Your task to perform on an android device: Go to Google maps Image 0: 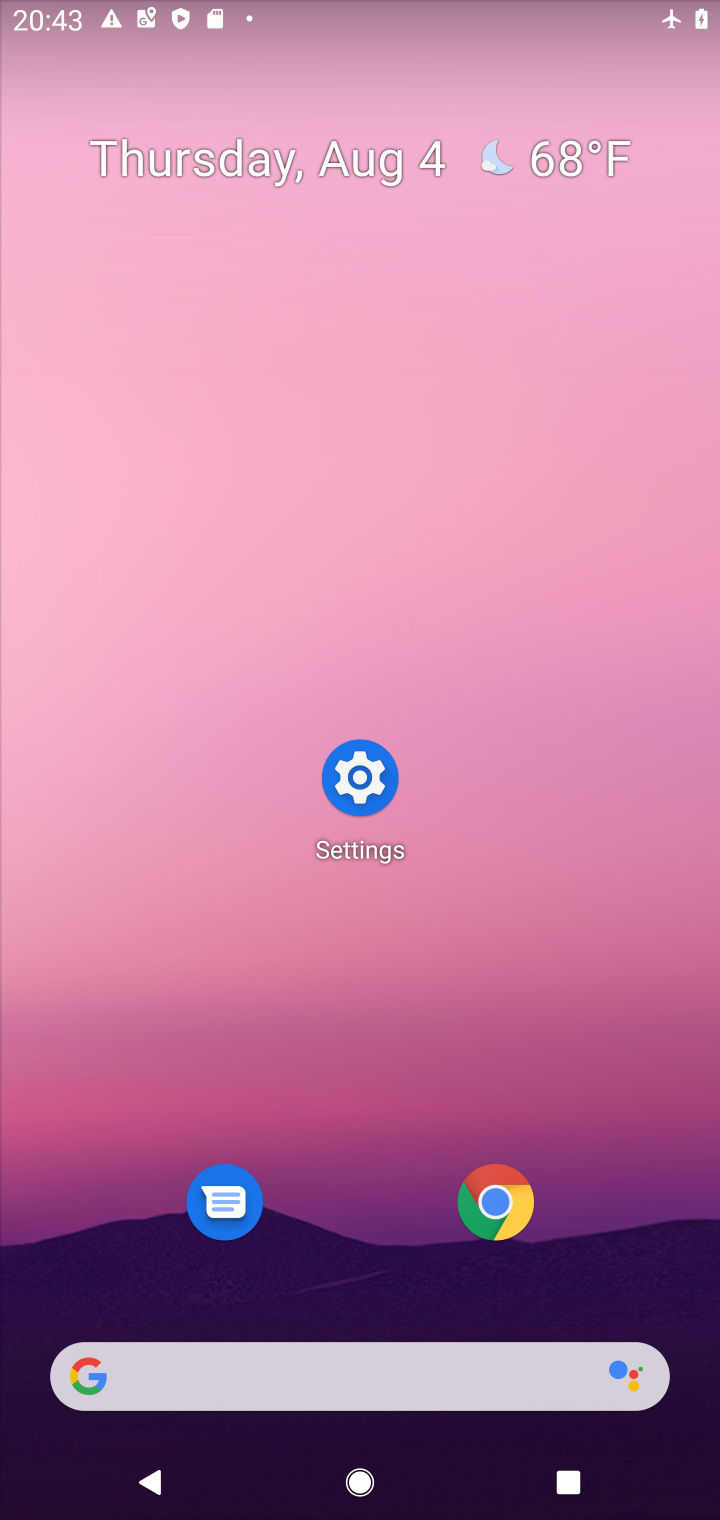
Step 0: drag from (345, 1197) to (361, 341)
Your task to perform on an android device: Go to Google maps Image 1: 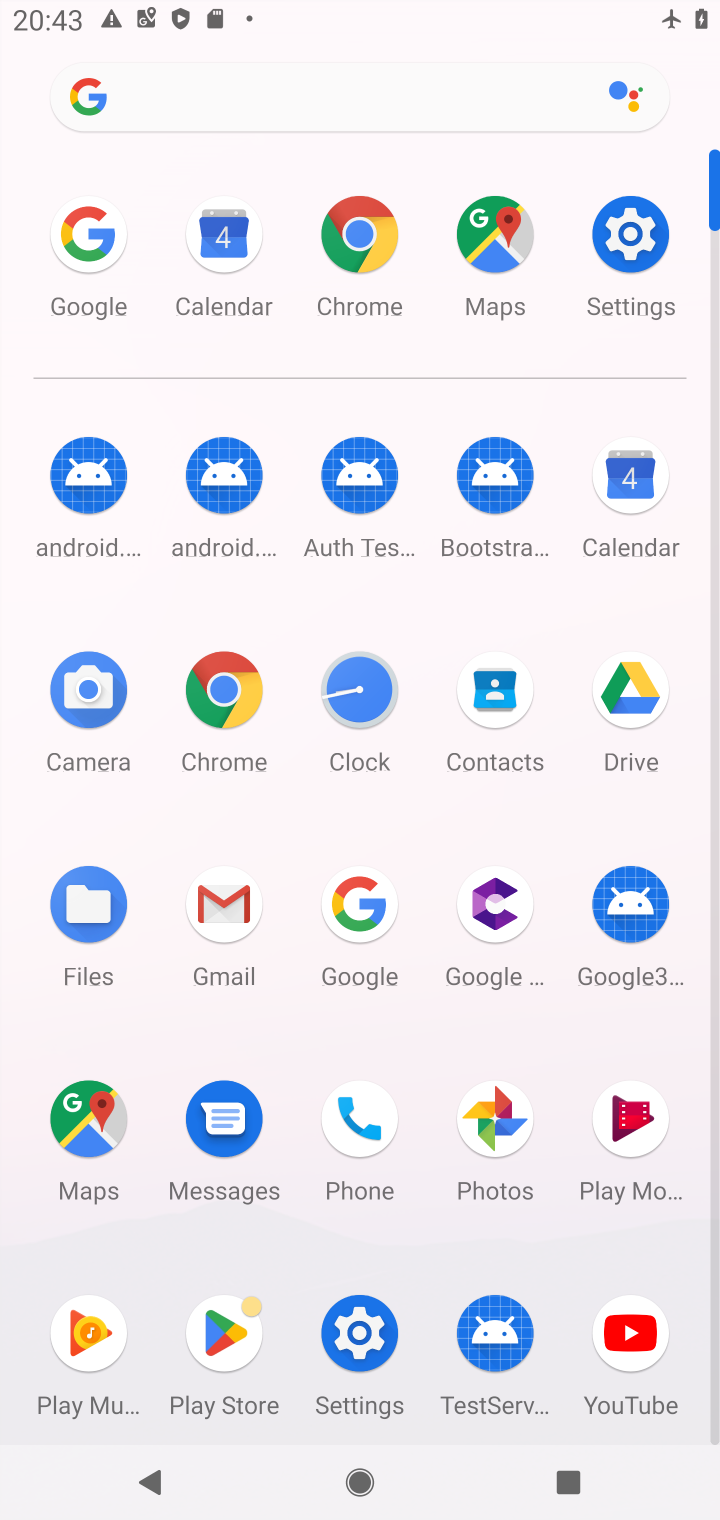
Step 1: click (502, 243)
Your task to perform on an android device: Go to Google maps Image 2: 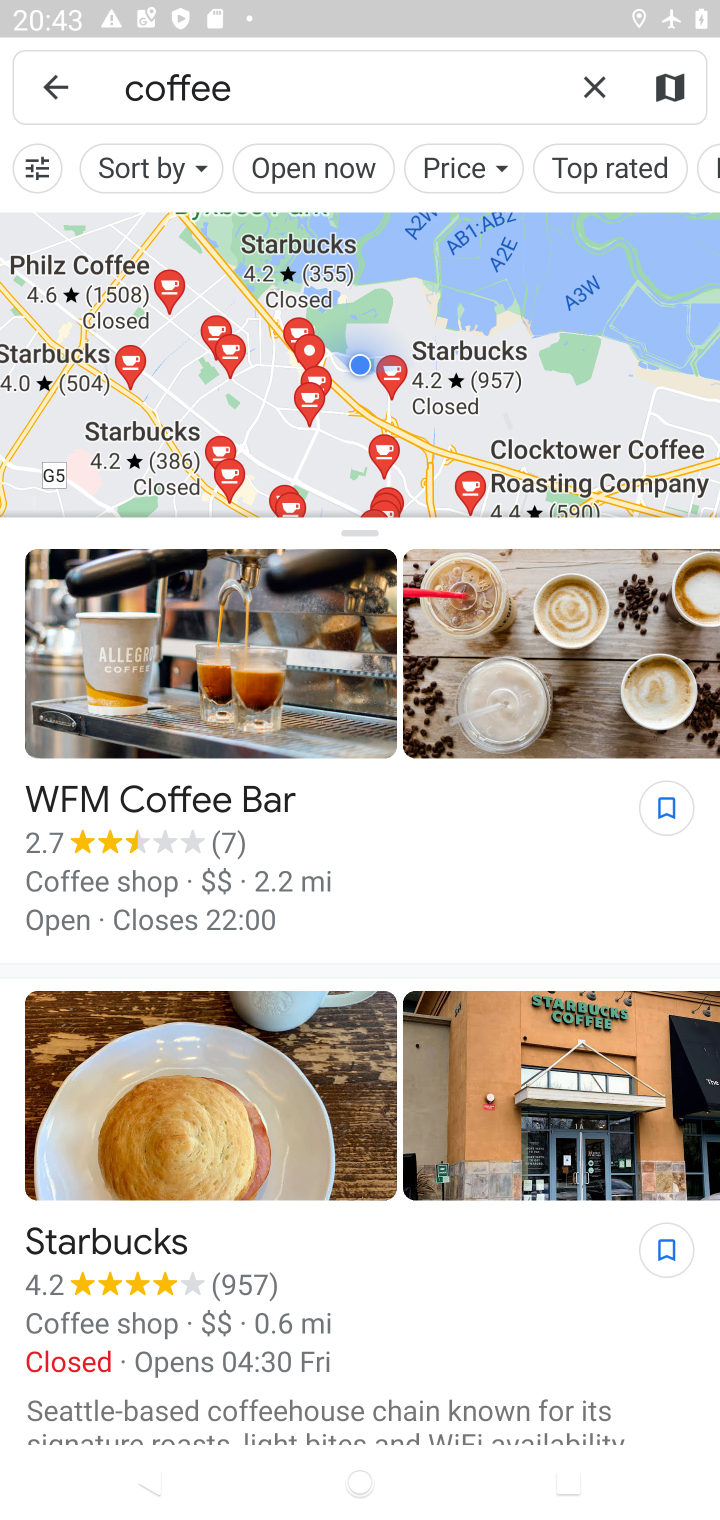
Step 2: task complete